Your task to perform on an android device: Open Google Chrome and open the bookmarks view Image 0: 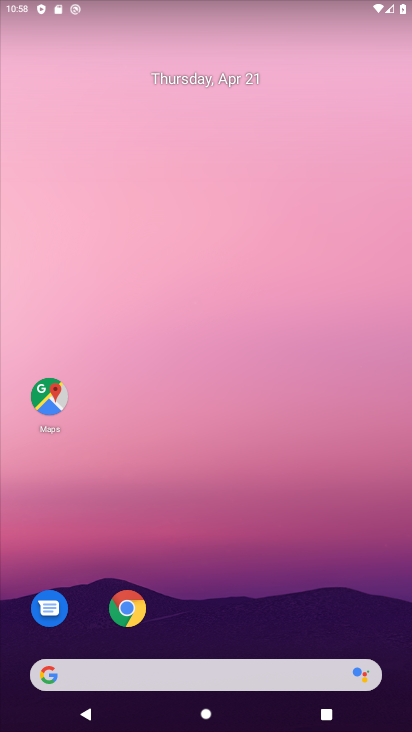
Step 0: click (133, 613)
Your task to perform on an android device: Open Google Chrome and open the bookmarks view Image 1: 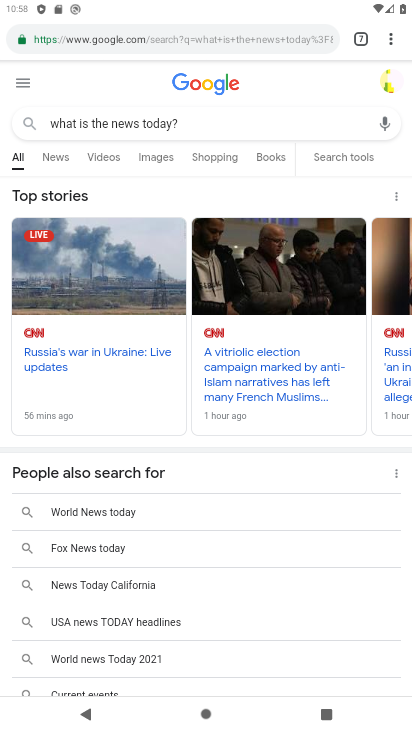
Step 1: task complete